Your task to perform on an android device: Show me the alarms in the clock app Image 0: 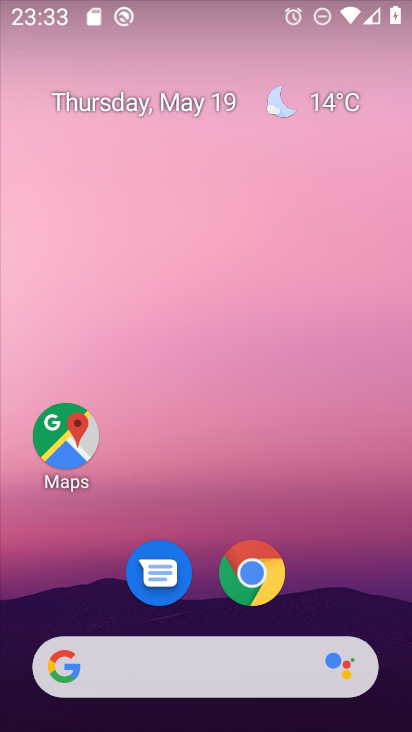
Step 0: click (404, 661)
Your task to perform on an android device: Show me the alarms in the clock app Image 1: 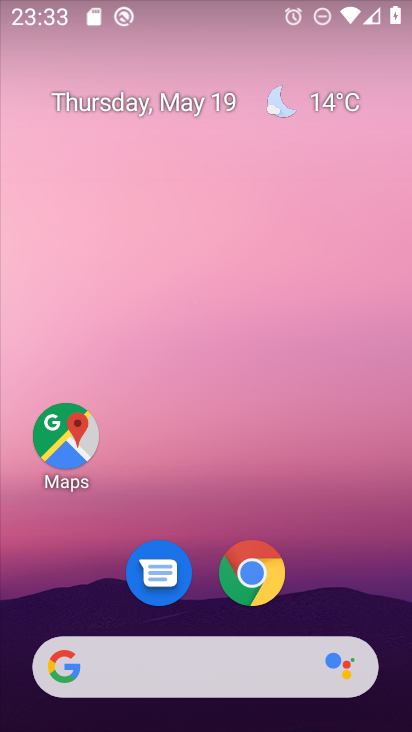
Step 1: drag from (305, 563) to (253, 147)
Your task to perform on an android device: Show me the alarms in the clock app Image 2: 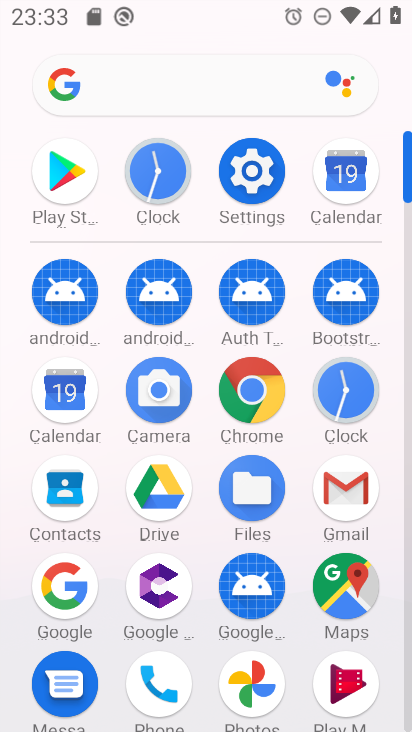
Step 2: click (352, 399)
Your task to perform on an android device: Show me the alarms in the clock app Image 3: 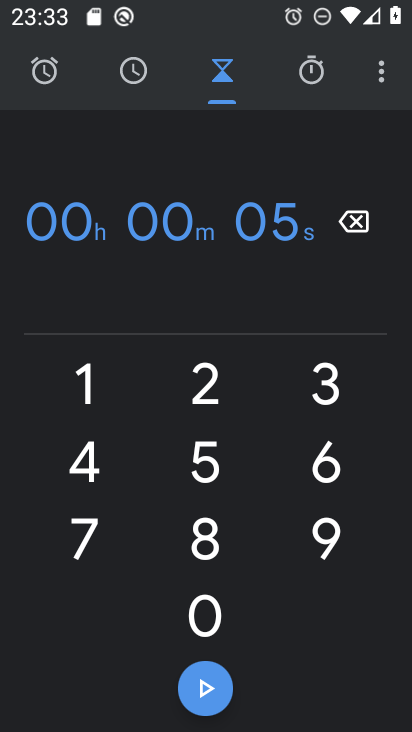
Step 3: click (388, 70)
Your task to perform on an android device: Show me the alarms in the clock app Image 4: 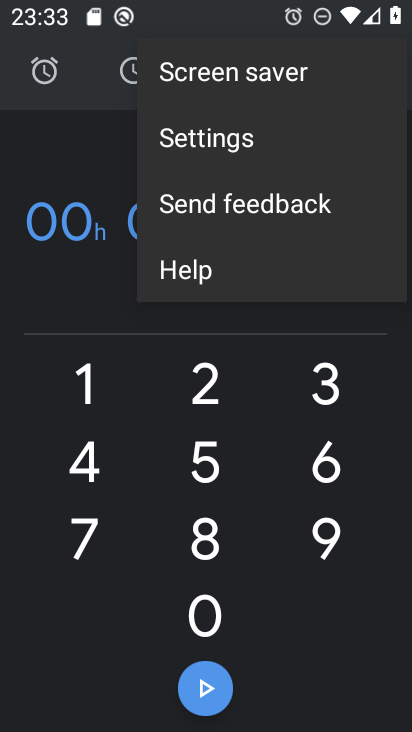
Step 4: click (56, 78)
Your task to perform on an android device: Show me the alarms in the clock app Image 5: 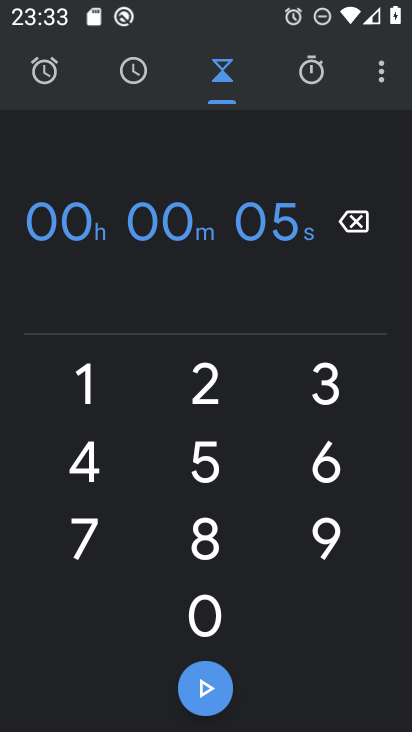
Step 5: click (56, 77)
Your task to perform on an android device: Show me the alarms in the clock app Image 6: 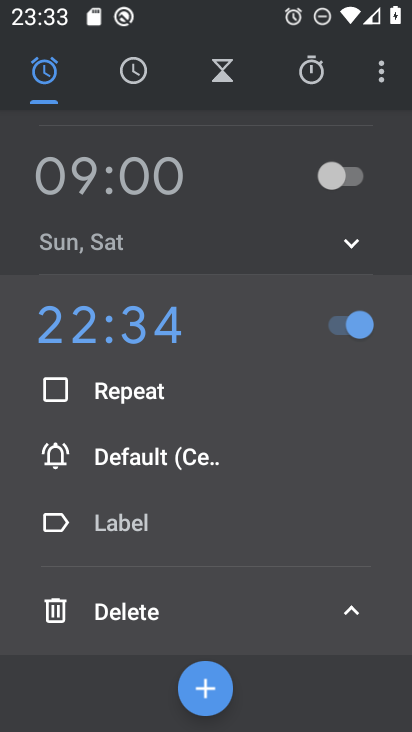
Step 6: task complete